Your task to perform on an android device: Clear all items from cart on target. Search for "bose quietcomfort 35" on target, select the first entry, and add it to the cart. Image 0: 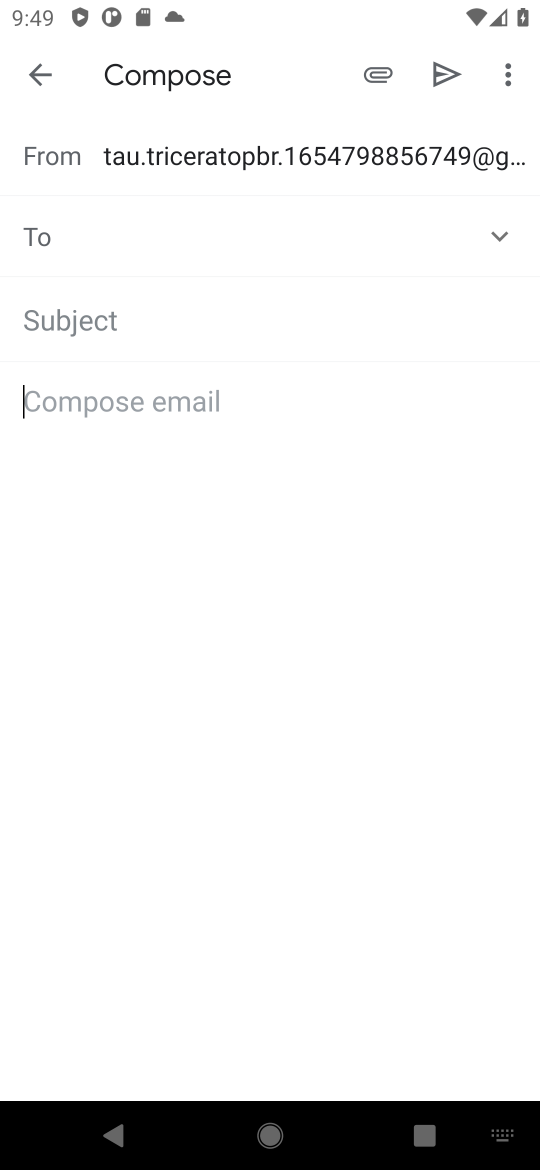
Step 0: press home button
Your task to perform on an android device: Clear all items from cart on target. Search for "bose quietcomfort 35" on target, select the first entry, and add it to the cart. Image 1: 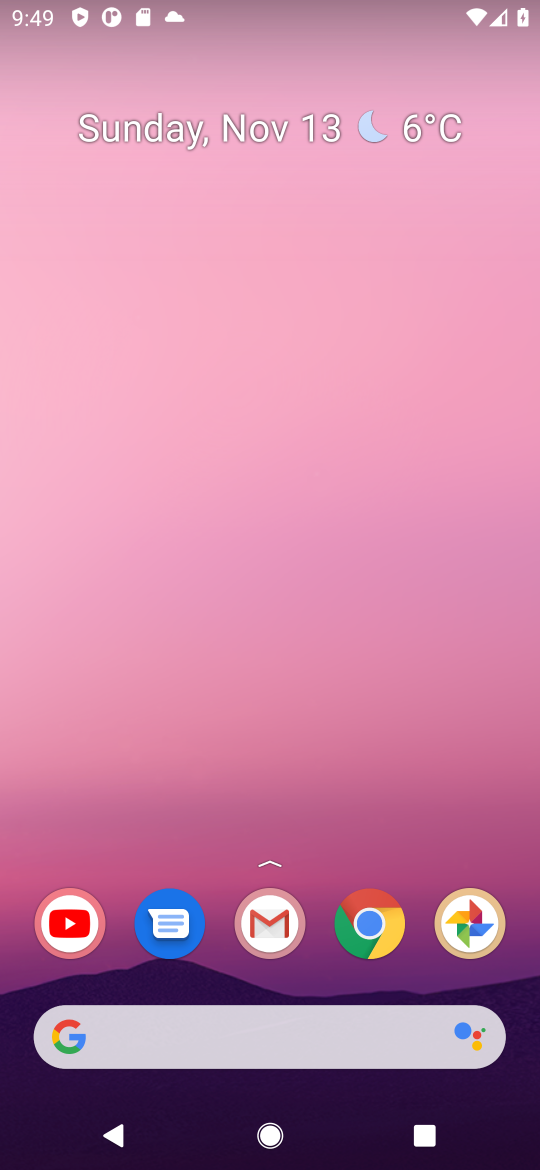
Step 1: click (370, 917)
Your task to perform on an android device: Clear all items from cart on target. Search for "bose quietcomfort 35" on target, select the first entry, and add it to the cart. Image 2: 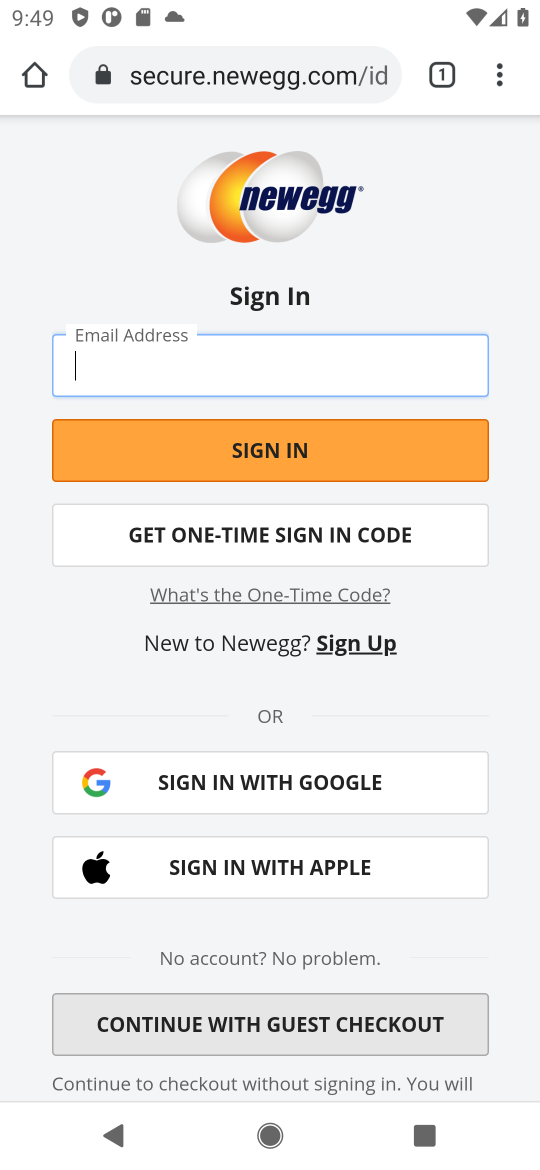
Step 2: click (323, 72)
Your task to perform on an android device: Clear all items from cart on target. Search for "bose quietcomfort 35" on target, select the first entry, and add it to the cart. Image 3: 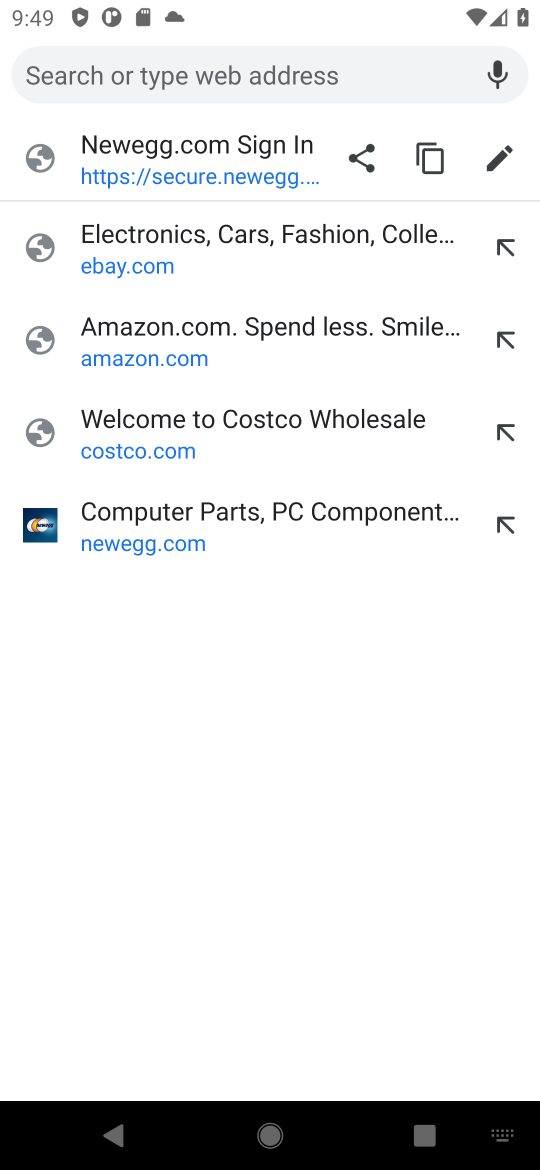
Step 3: type "target"
Your task to perform on an android device: Clear all items from cart on target. Search for "bose quietcomfort 35" on target, select the first entry, and add it to the cart. Image 4: 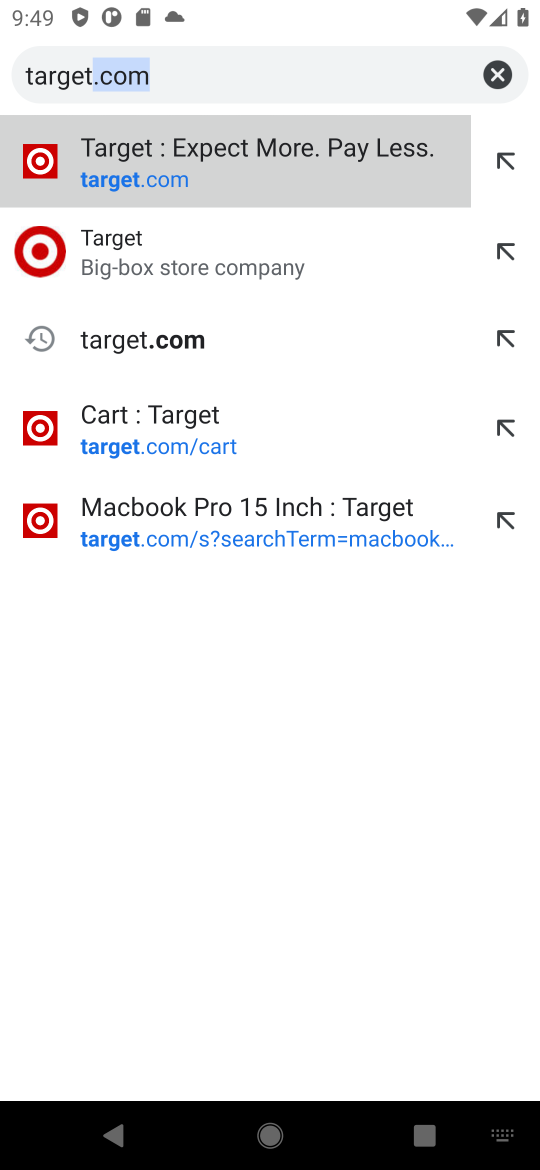
Step 4: press enter
Your task to perform on an android device: Clear all items from cart on target. Search for "bose quietcomfort 35" on target, select the first entry, and add it to the cart. Image 5: 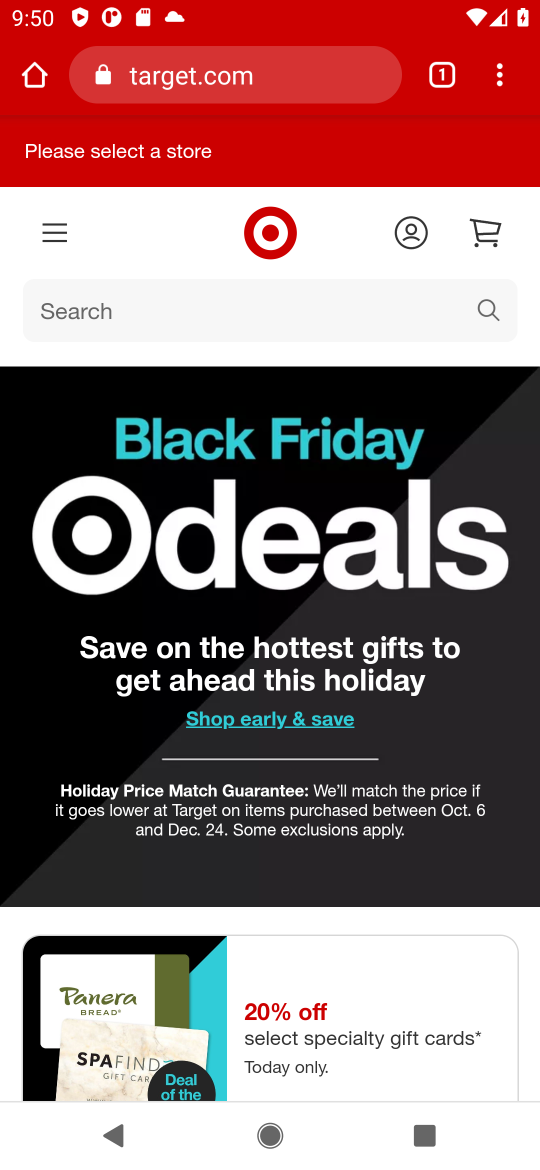
Step 5: click (481, 306)
Your task to perform on an android device: Clear all items from cart on target. Search for "bose quietcomfort 35" on target, select the first entry, and add it to the cart. Image 6: 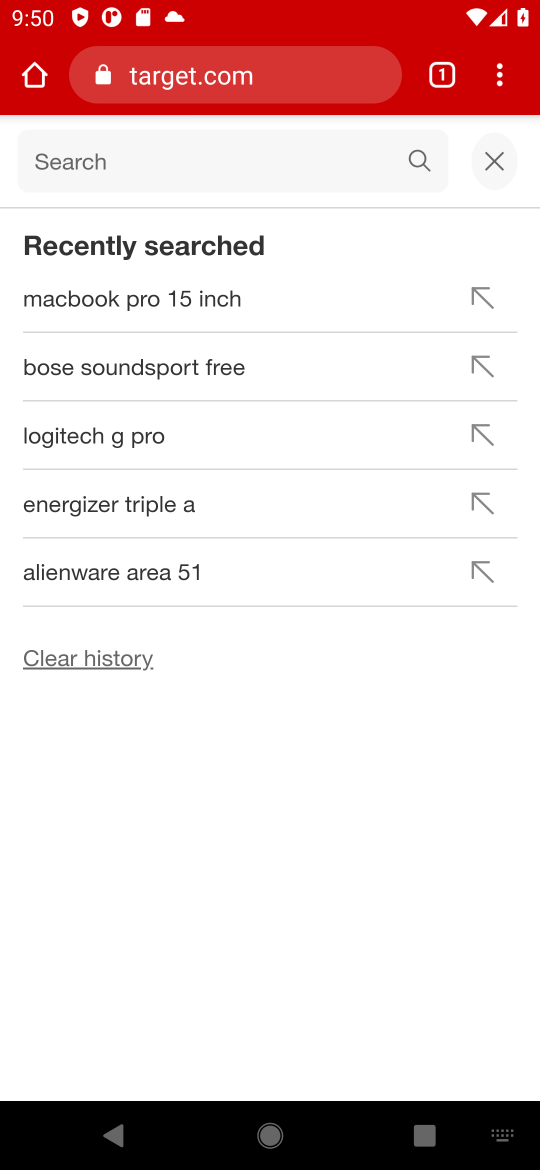
Step 6: type "bose quietcomfort 35"
Your task to perform on an android device: Clear all items from cart on target. Search for "bose quietcomfort 35" on target, select the first entry, and add it to the cart. Image 7: 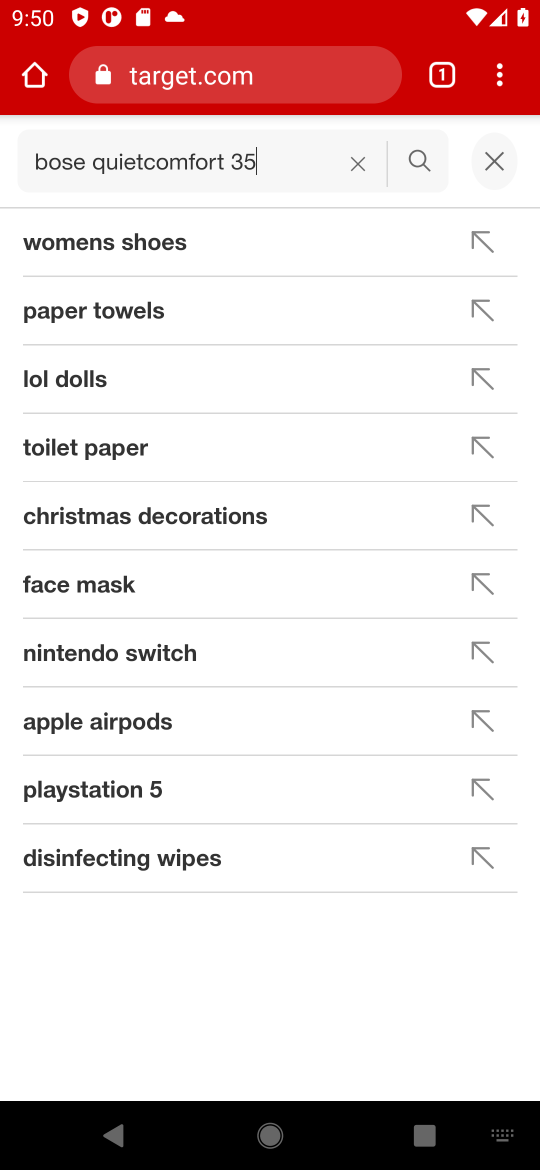
Step 7: press enter
Your task to perform on an android device: Clear all items from cart on target. Search for "bose quietcomfort 35" on target, select the first entry, and add it to the cart. Image 8: 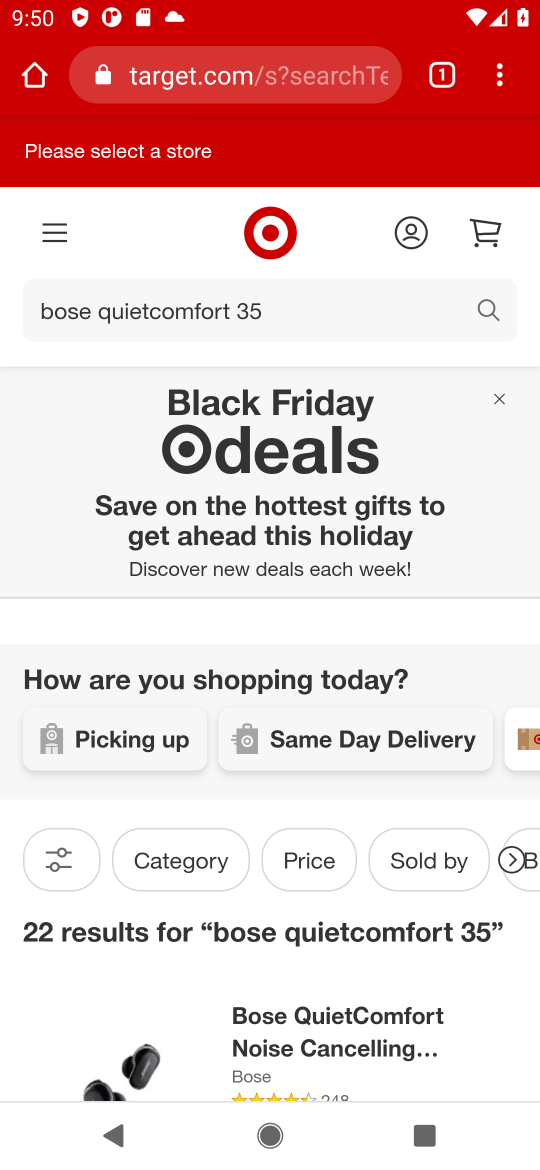
Step 8: drag from (446, 983) to (389, 447)
Your task to perform on an android device: Clear all items from cart on target. Search for "bose quietcomfort 35" on target, select the first entry, and add it to the cart. Image 9: 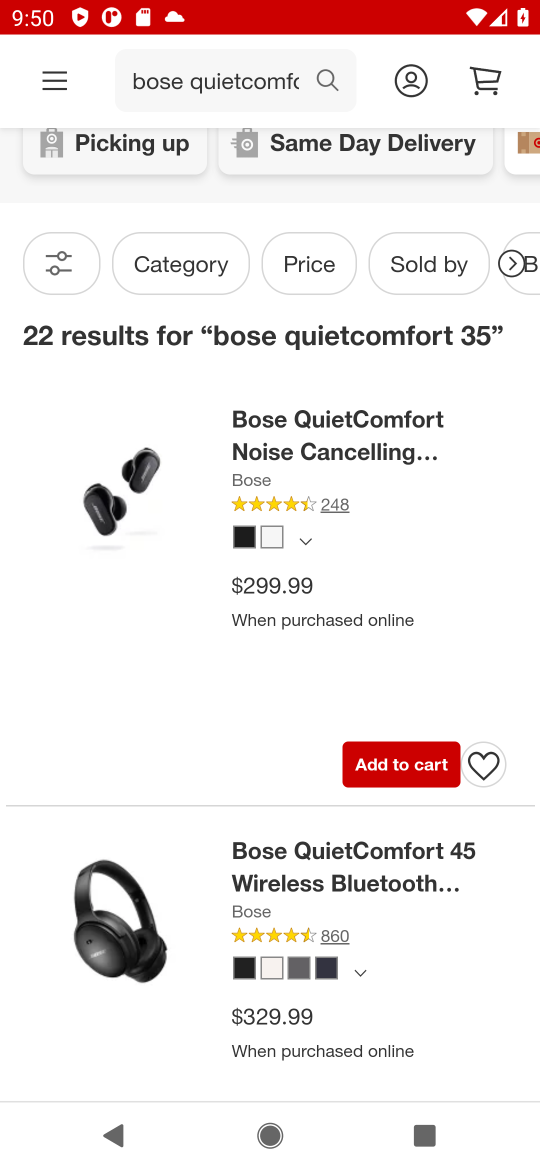
Step 9: drag from (448, 940) to (393, 465)
Your task to perform on an android device: Clear all items from cart on target. Search for "bose quietcomfort 35" on target, select the first entry, and add it to the cart. Image 10: 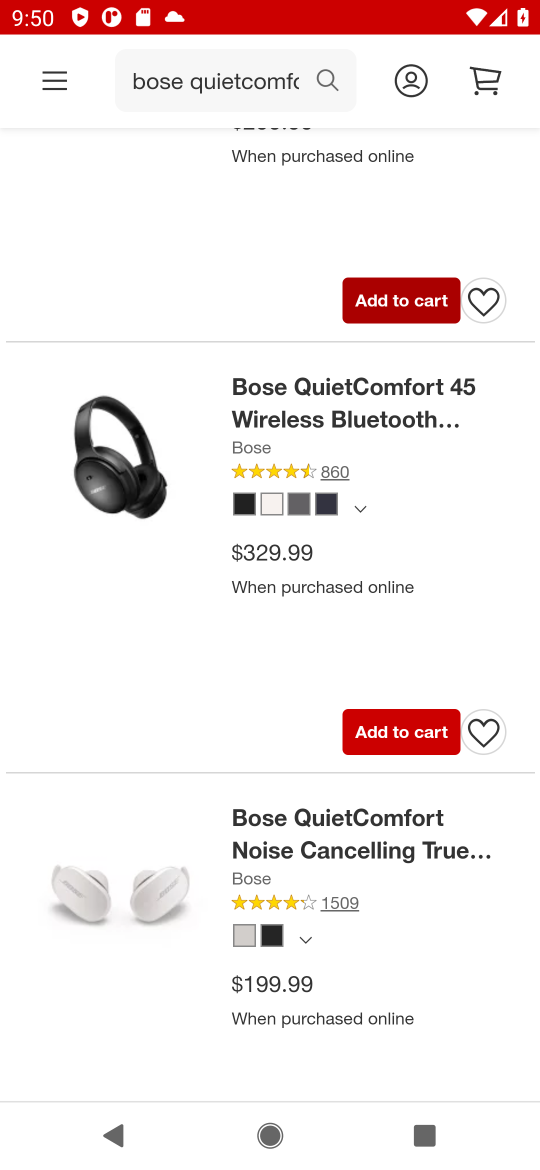
Step 10: drag from (465, 974) to (452, 544)
Your task to perform on an android device: Clear all items from cart on target. Search for "bose quietcomfort 35" on target, select the first entry, and add it to the cart. Image 11: 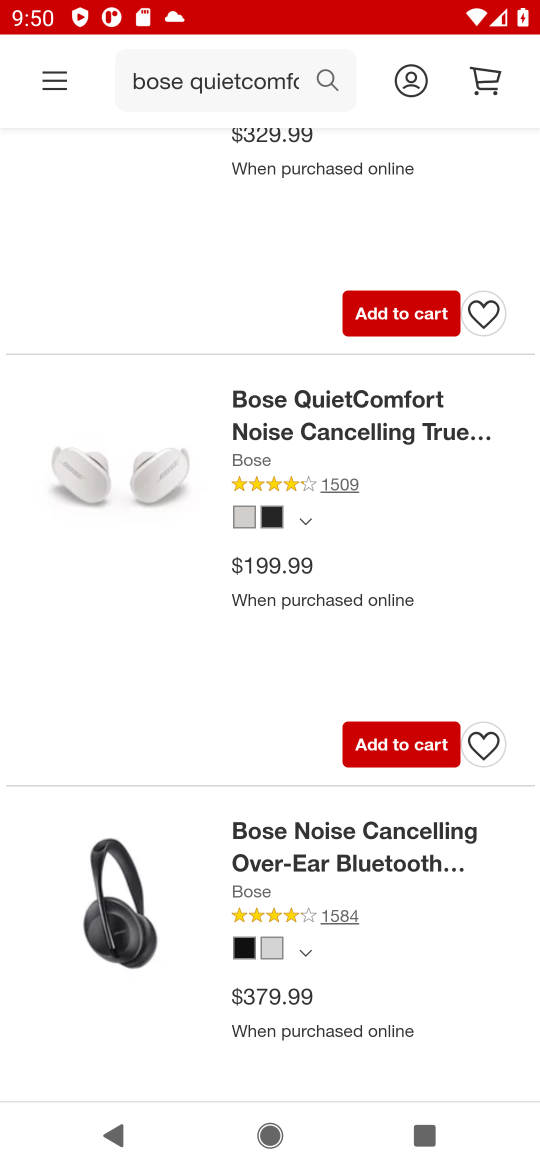
Step 11: drag from (424, 970) to (341, 536)
Your task to perform on an android device: Clear all items from cart on target. Search for "bose quietcomfort 35" on target, select the first entry, and add it to the cart. Image 12: 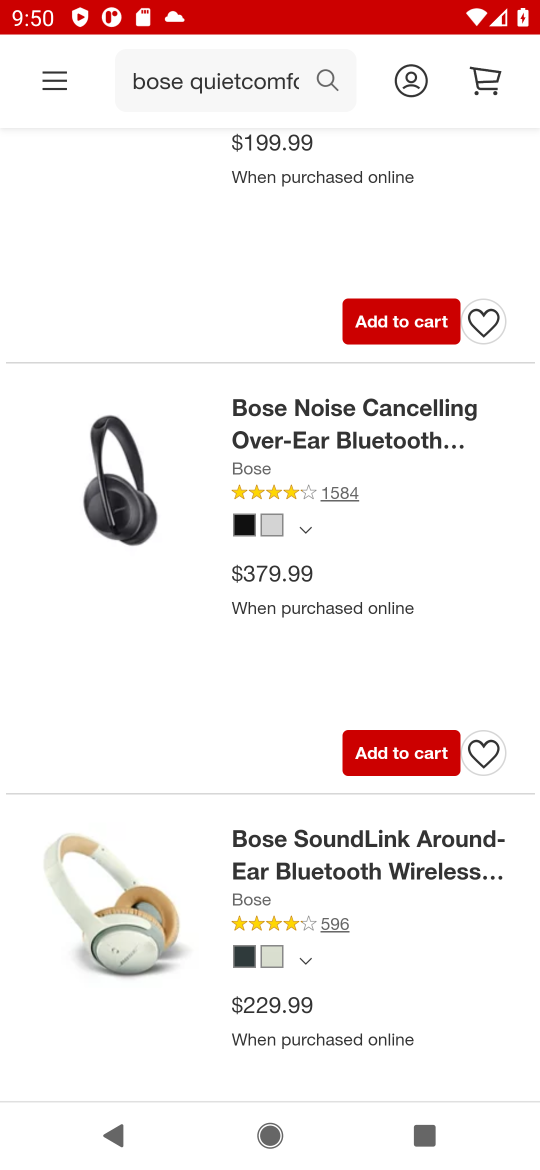
Step 12: drag from (451, 954) to (397, 533)
Your task to perform on an android device: Clear all items from cart on target. Search for "bose quietcomfort 35" on target, select the first entry, and add it to the cart. Image 13: 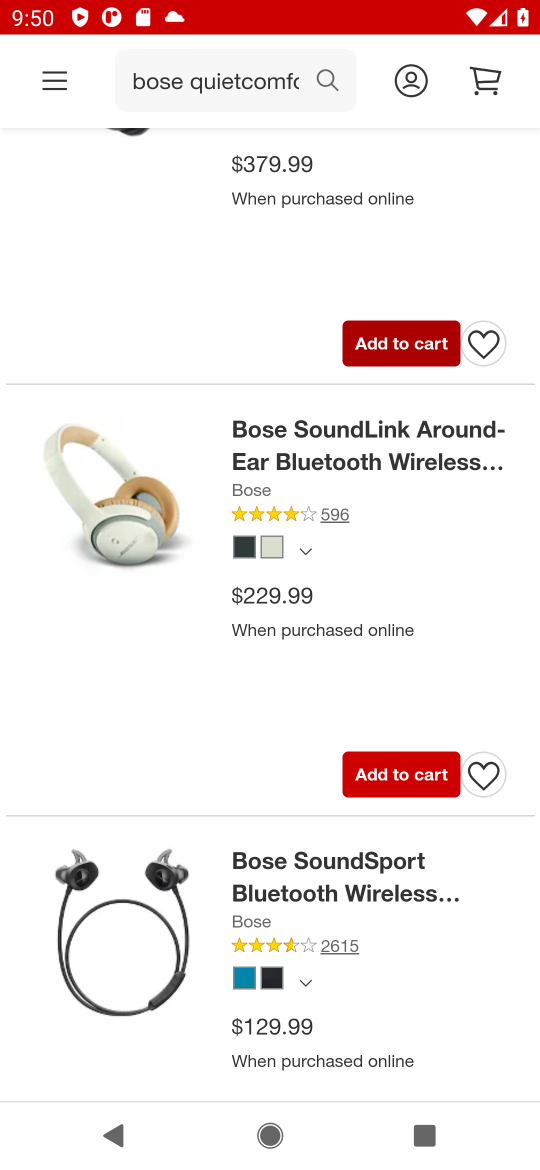
Step 13: drag from (420, 912) to (387, 492)
Your task to perform on an android device: Clear all items from cart on target. Search for "bose quietcomfort 35" on target, select the first entry, and add it to the cart. Image 14: 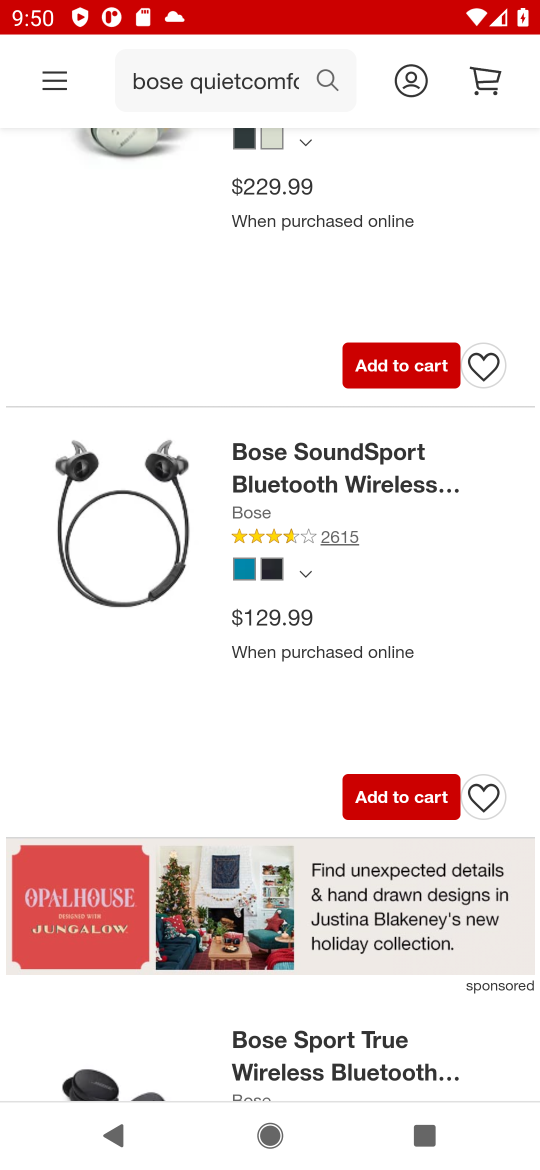
Step 14: drag from (411, 910) to (397, 511)
Your task to perform on an android device: Clear all items from cart on target. Search for "bose quietcomfort 35" on target, select the first entry, and add it to the cart. Image 15: 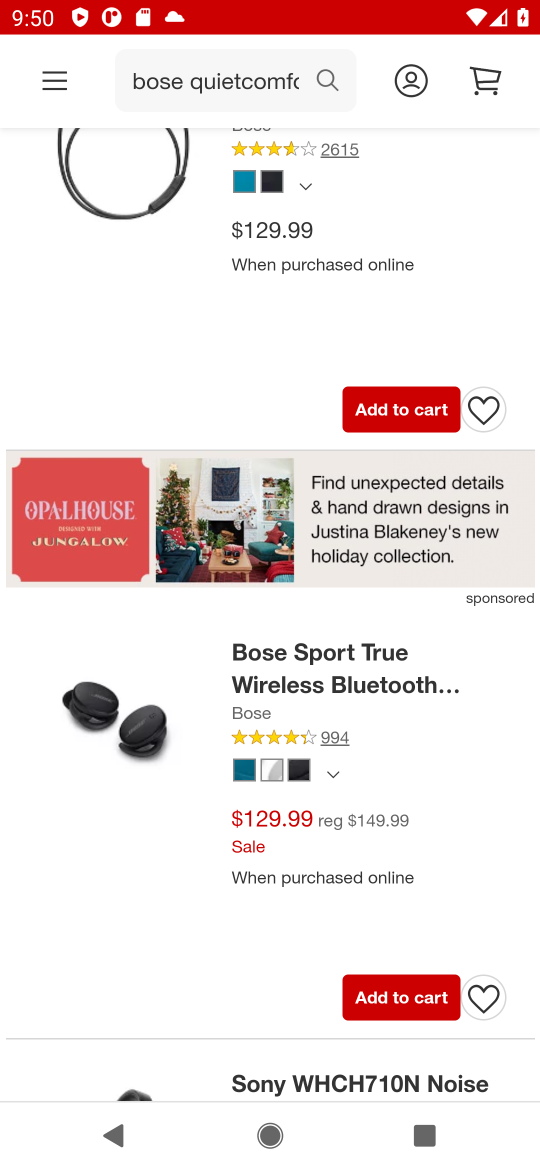
Step 15: drag from (419, 808) to (390, 321)
Your task to perform on an android device: Clear all items from cart on target. Search for "bose quietcomfort 35" on target, select the first entry, and add it to the cart. Image 16: 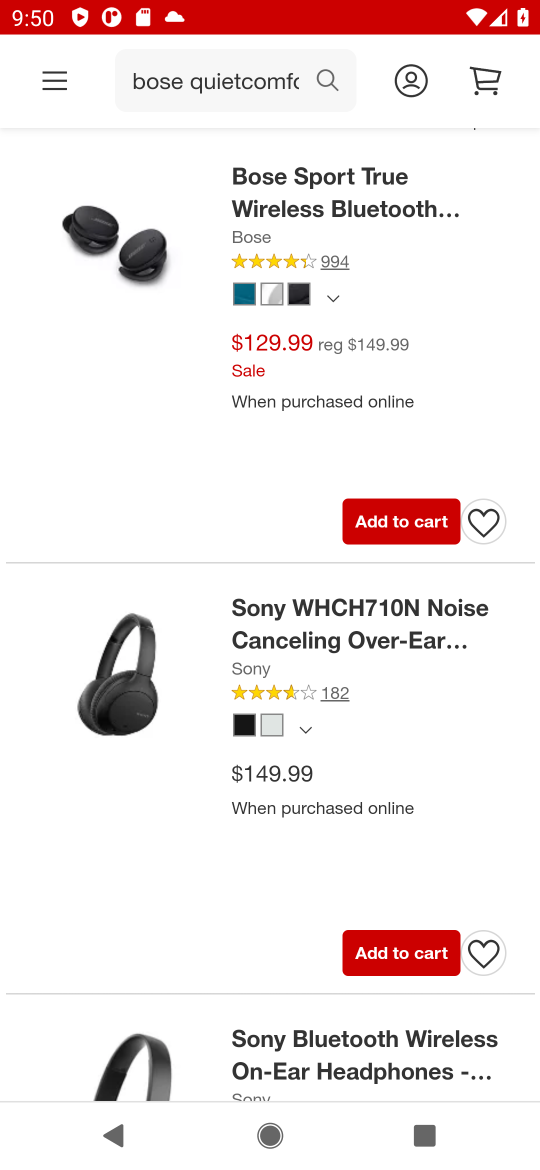
Step 16: drag from (442, 710) to (384, 307)
Your task to perform on an android device: Clear all items from cart on target. Search for "bose quietcomfort 35" on target, select the first entry, and add it to the cart. Image 17: 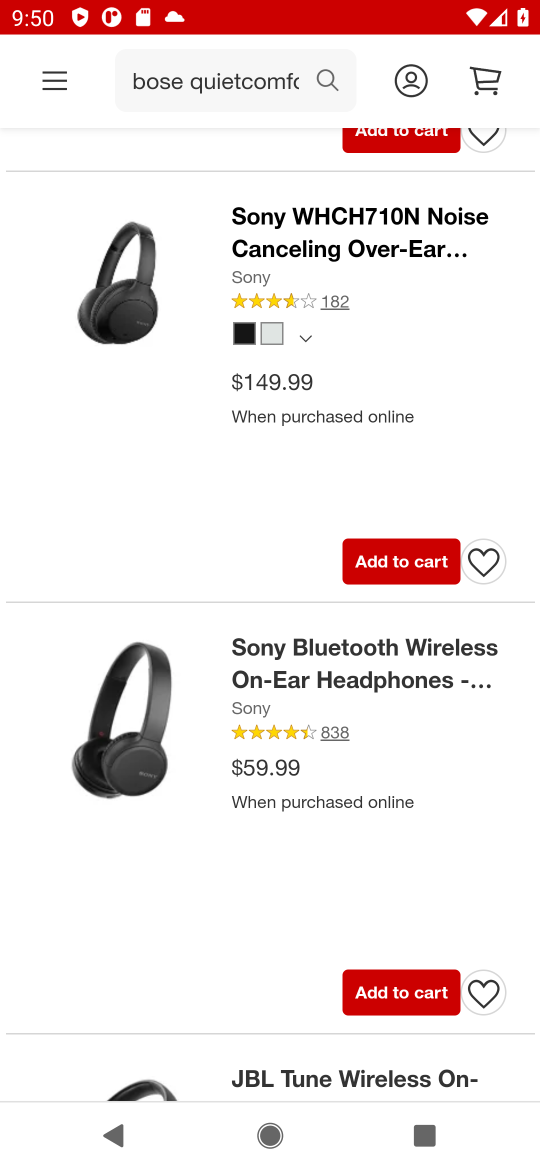
Step 17: drag from (386, 895) to (383, 460)
Your task to perform on an android device: Clear all items from cart on target. Search for "bose quietcomfort 35" on target, select the first entry, and add it to the cart. Image 18: 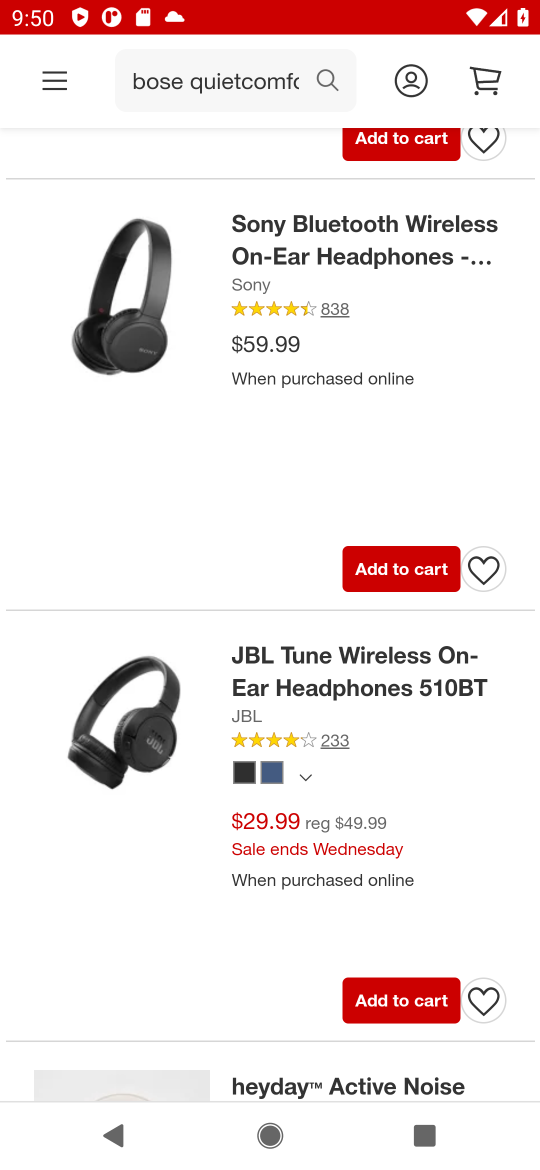
Step 18: click (430, 286)
Your task to perform on an android device: Clear all items from cart on target. Search for "bose quietcomfort 35" on target, select the first entry, and add it to the cart. Image 19: 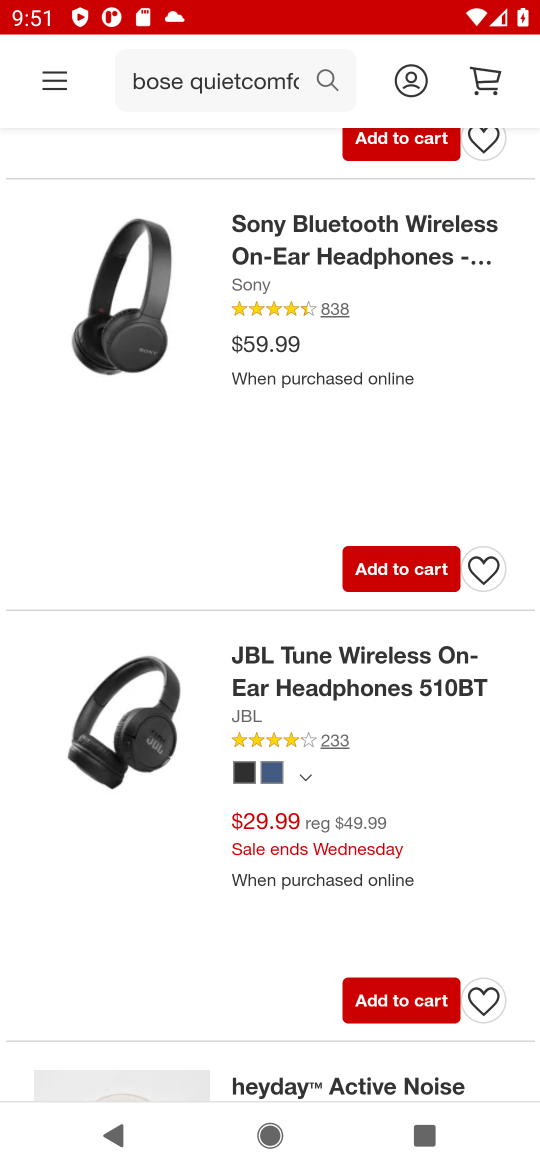
Step 19: task complete